Your task to perform on an android device: stop showing notifications on the lock screen Image 0: 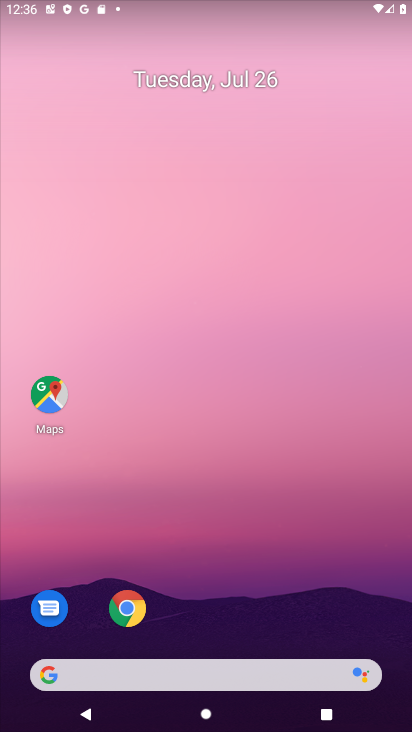
Step 0: drag from (236, 611) to (220, 14)
Your task to perform on an android device: stop showing notifications on the lock screen Image 1: 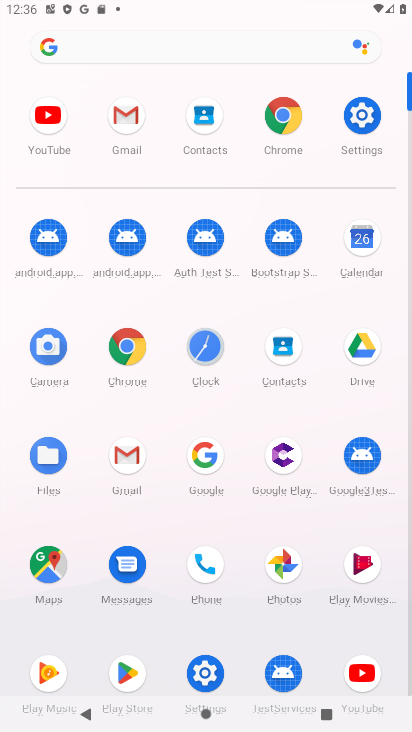
Step 1: click (363, 135)
Your task to perform on an android device: stop showing notifications on the lock screen Image 2: 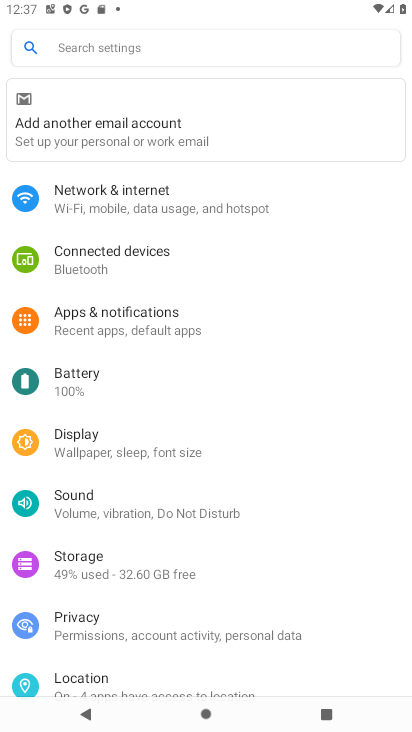
Step 2: click (90, 680)
Your task to perform on an android device: stop showing notifications on the lock screen Image 3: 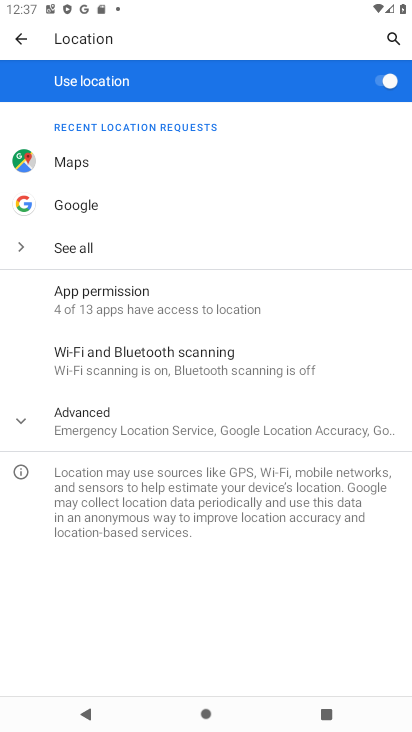
Step 3: click (161, 383)
Your task to perform on an android device: stop showing notifications on the lock screen Image 4: 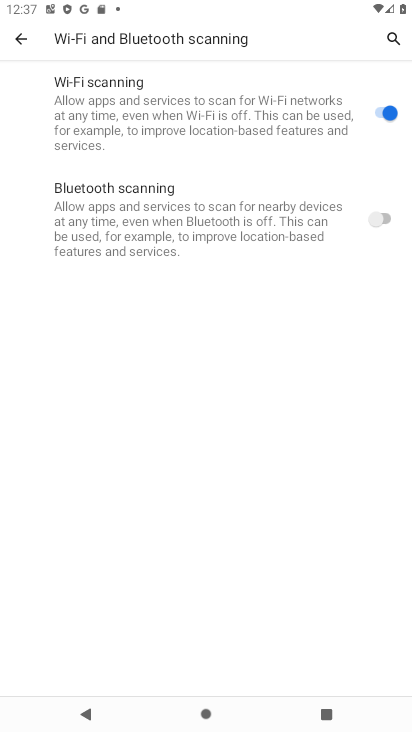
Step 4: task complete